Your task to perform on an android device: toggle wifi Image 0: 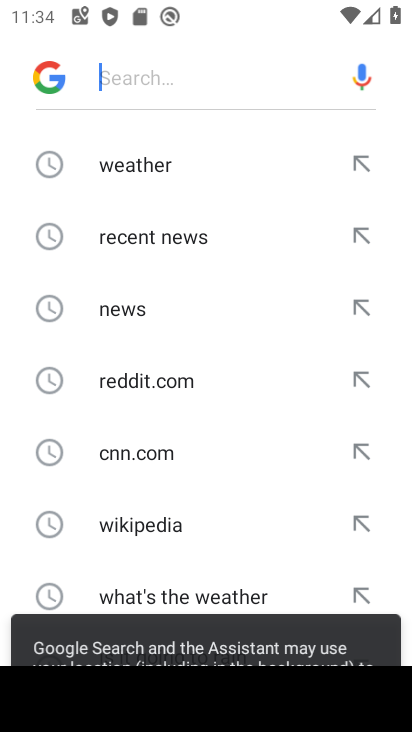
Step 0: press back button
Your task to perform on an android device: toggle wifi Image 1: 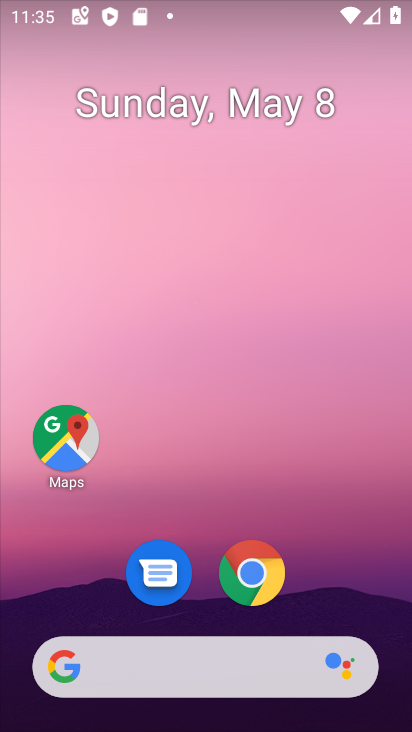
Step 1: drag from (358, 574) to (262, 0)
Your task to perform on an android device: toggle wifi Image 2: 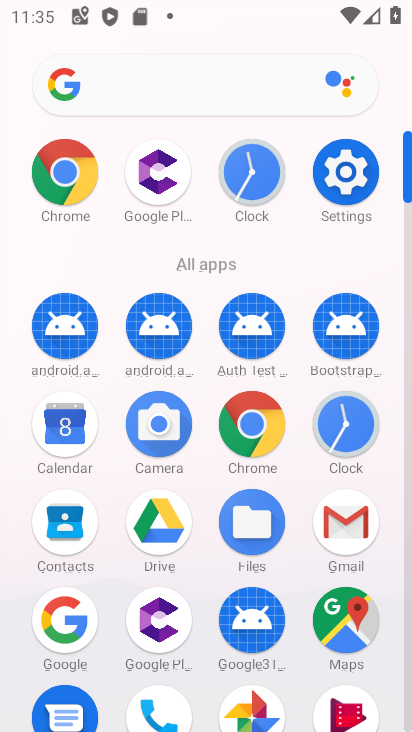
Step 2: click (350, 167)
Your task to perform on an android device: toggle wifi Image 3: 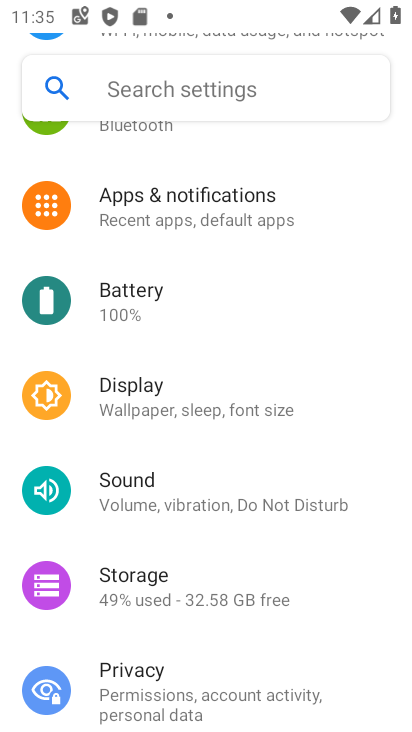
Step 3: drag from (312, 190) to (279, 553)
Your task to perform on an android device: toggle wifi Image 4: 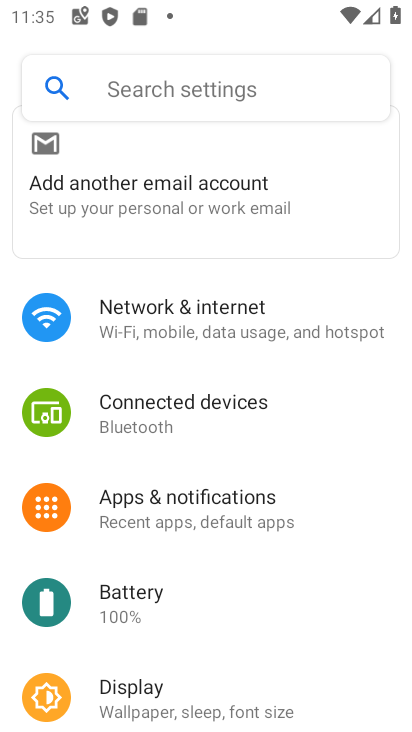
Step 4: click (262, 307)
Your task to perform on an android device: toggle wifi Image 5: 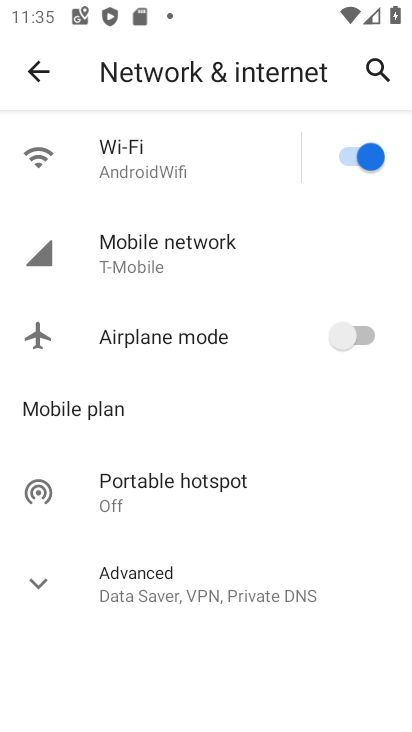
Step 5: click (350, 162)
Your task to perform on an android device: toggle wifi Image 6: 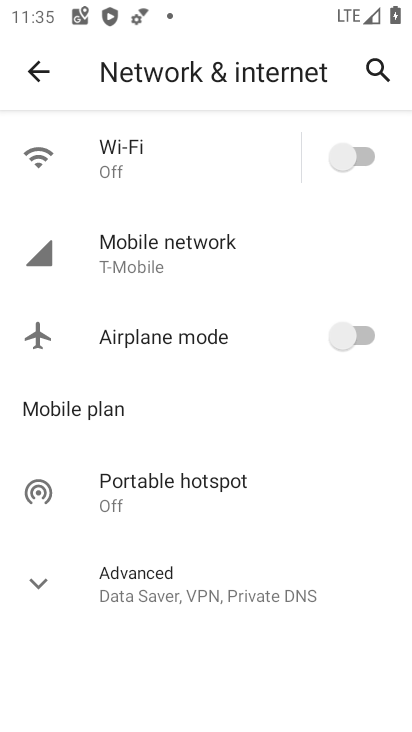
Step 6: task complete